Your task to perform on an android device: Open sound settings Image 0: 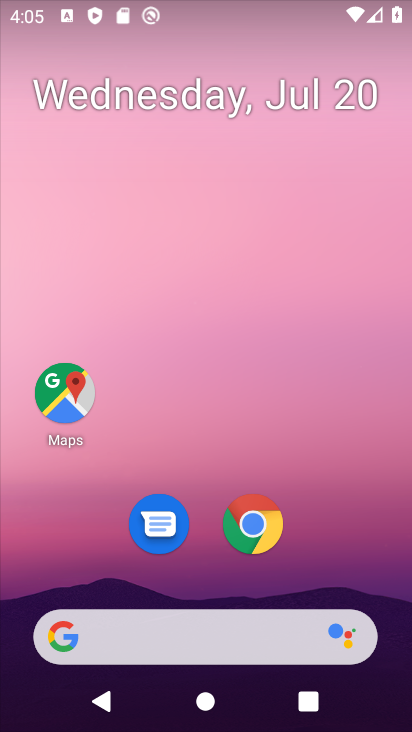
Step 0: drag from (320, 513) to (301, 19)
Your task to perform on an android device: Open sound settings Image 1: 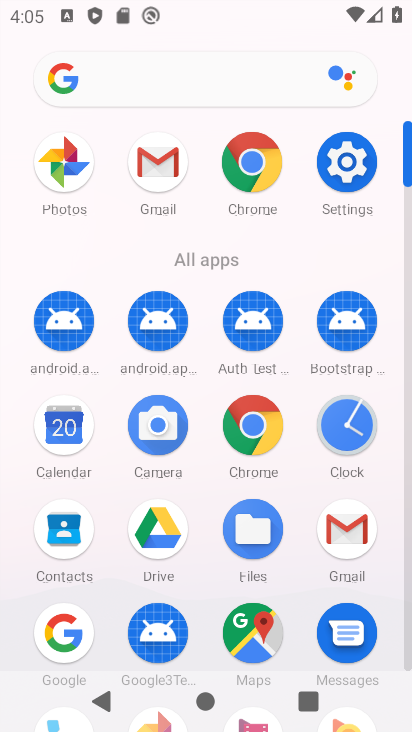
Step 1: click (344, 173)
Your task to perform on an android device: Open sound settings Image 2: 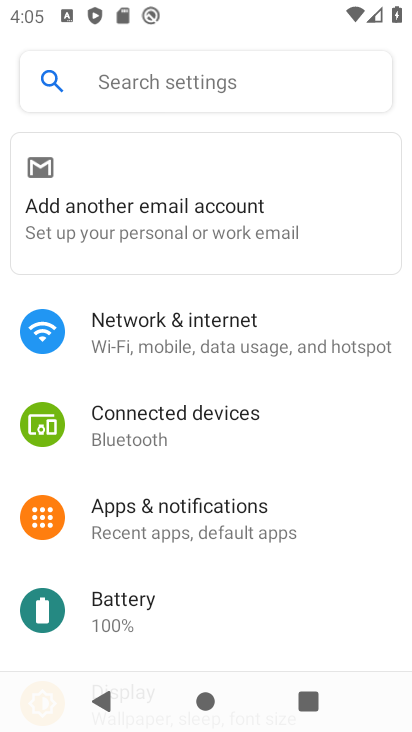
Step 2: drag from (293, 485) to (325, 199)
Your task to perform on an android device: Open sound settings Image 3: 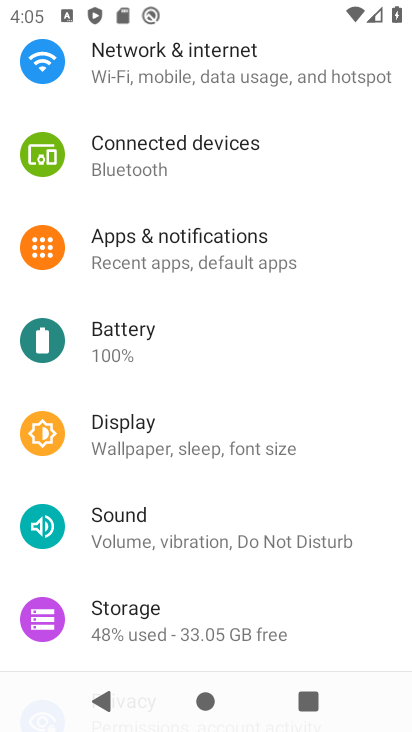
Step 3: click (228, 526)
Your task to perform on an android device: Open sound settings Image 4: 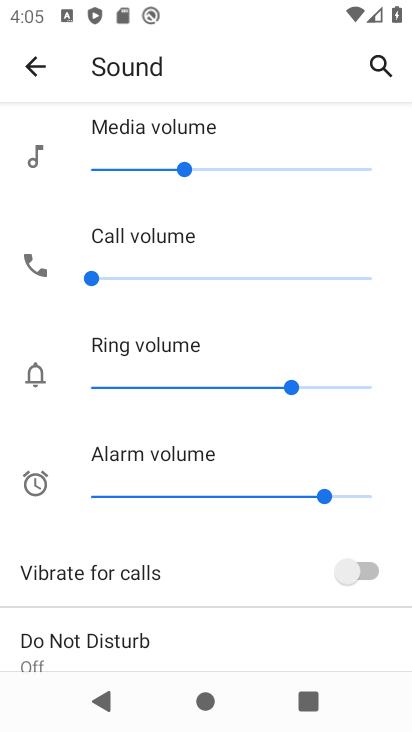
Step 4: task complete